Your task to perform on an android device: turn off data saver in the chrome app Image 0: 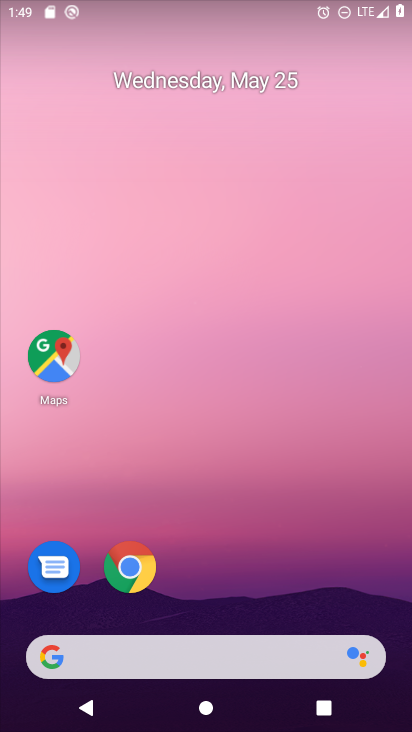
Step 0: click (124, 567)
Your task to perform on an android device: turn off data saver in the chrome app Image 1: 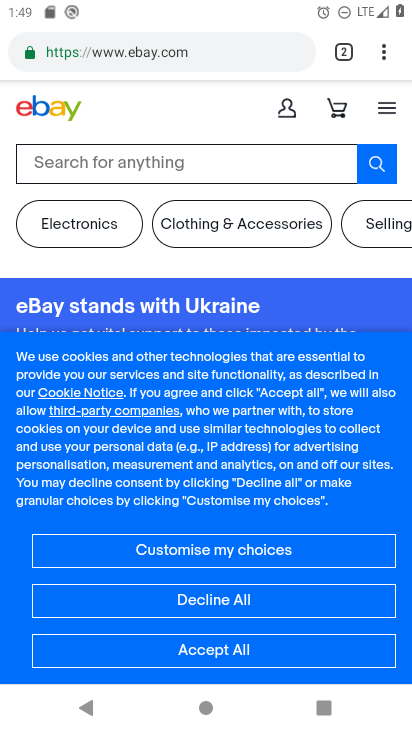
Step 1: click (379, 44)
Your task to perform on an android device: turn off data saver in the chrome app Image 2: 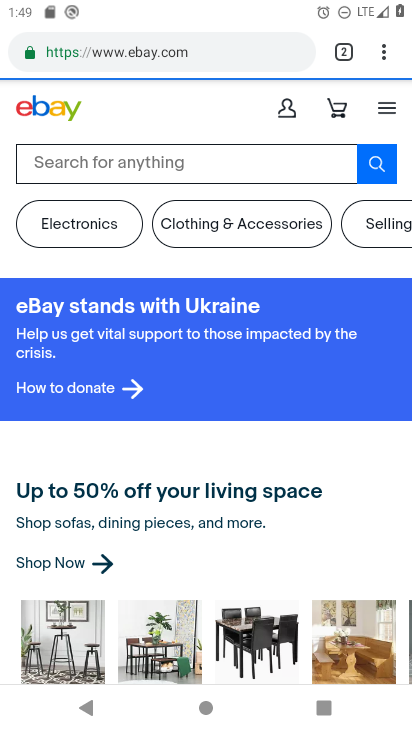
Step 2: click (384, 44)
Your task to perform on an android device: turn off data saver in the chrome app Image 3: 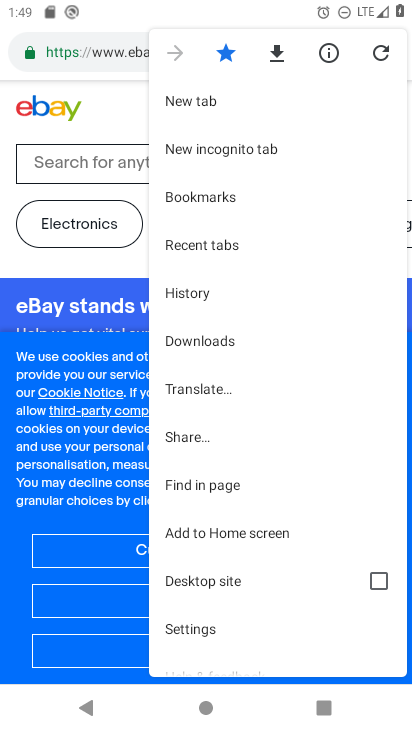
Step 3: click (195, 627)
Your task to perform on an android device: turn off data saver in the chrome app Image 4: 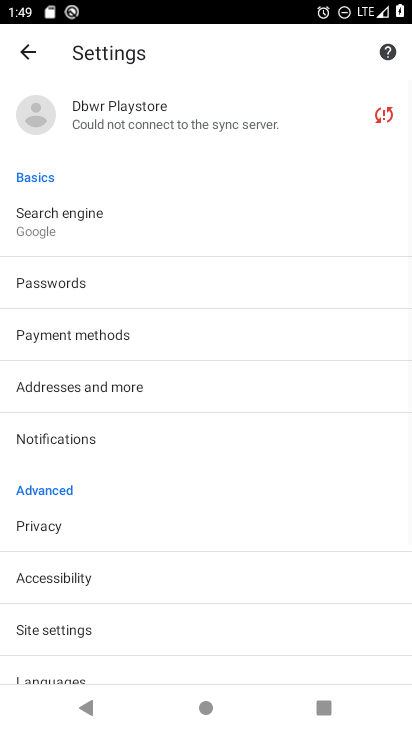
Step 4: drag from (228, 398) to (227, 290)
Your task to perform on an android device: turn off data saver in the chrome app Image 5: 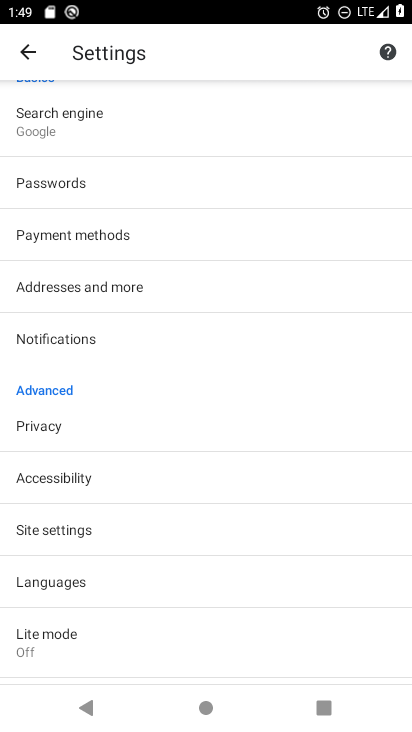
Step 5: click (42, 646)
Your task to perform on an android device: turn off data saver in the chrome app Image 6: 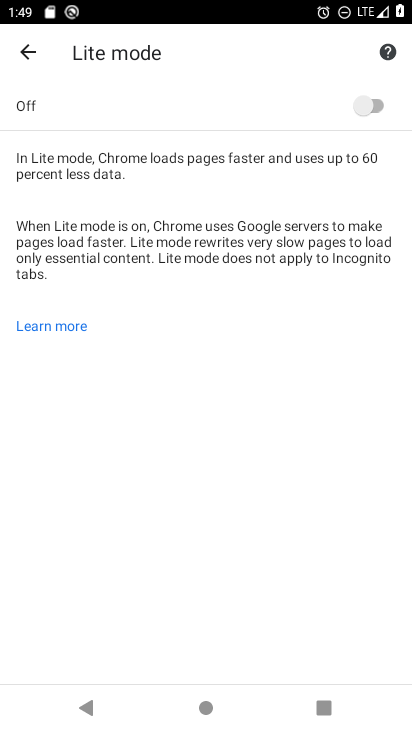
Step 6: task complete